Your task to perform on an android device: turn off sleep mode Image 0: 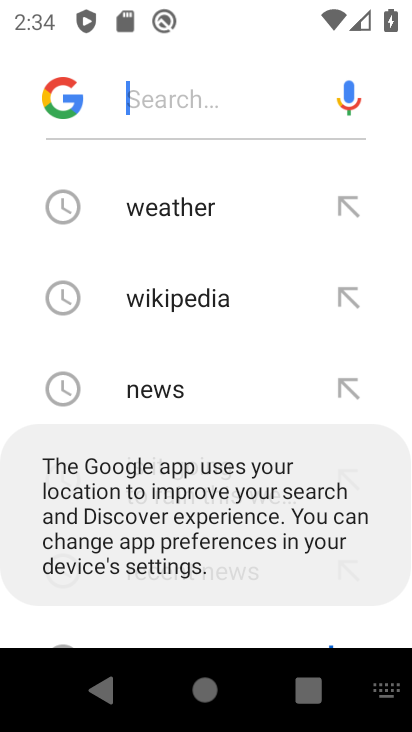
Step 0: press home button
Your task to perform on an android device: turn off sleep mode Image 1: 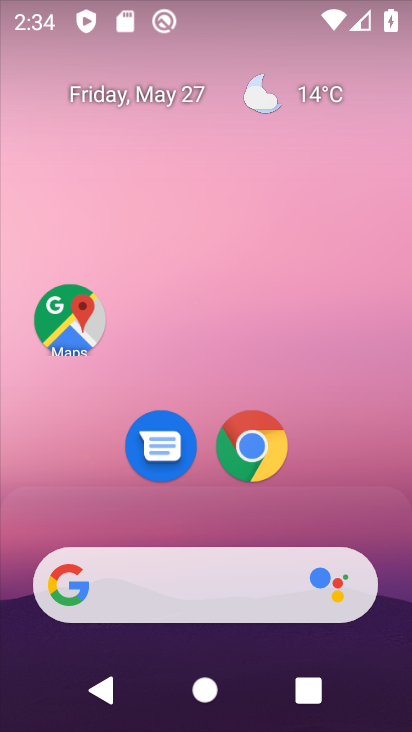
Step 1: drag from (208, 599) to (342, 31)
Your task to perform on an android device: turn off sleep mode Image 2: 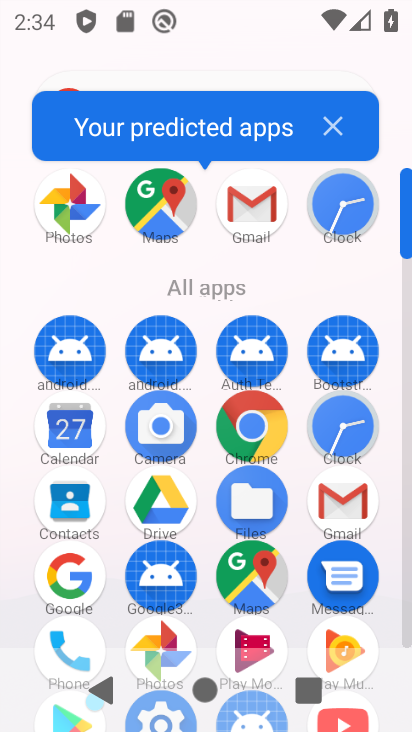
Step 2: drag from (203, 582) to (329, 112)
Your task to perform on an android device: turn off sleep mode Image 3: 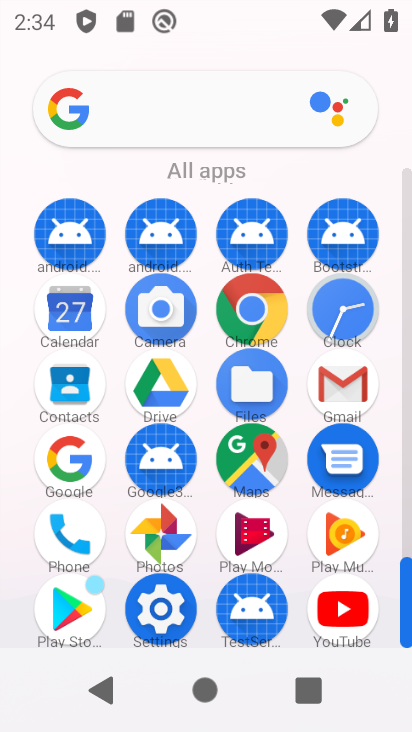
Step 3: click (157, 609)
Your task to perform on an android device: turn off sleep mode Image 4: 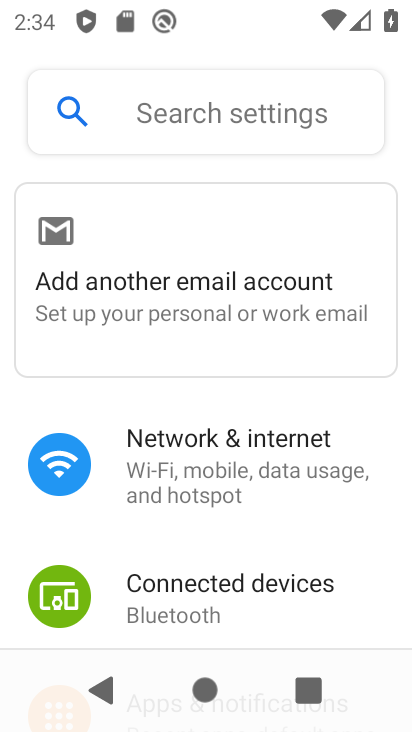
Step 4: drag from (187, 579) to (235, 124)
Your task to perform on an android device: turn off sleep mode Image 5: 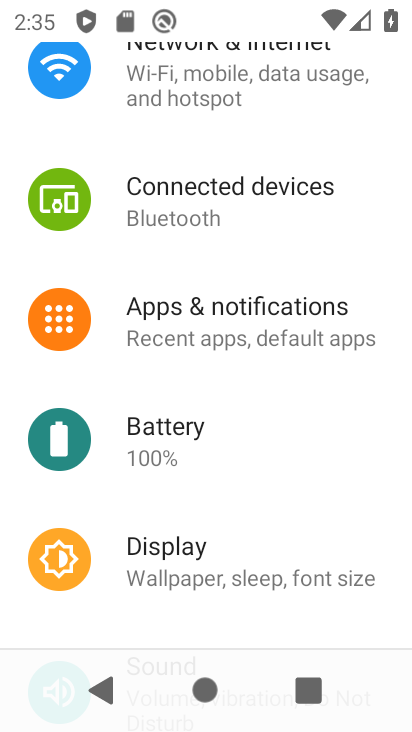
Step 5: drag from (297, 256) to (318, 93)
Your task to perform on an android device: turn off sleep mode Image 6: 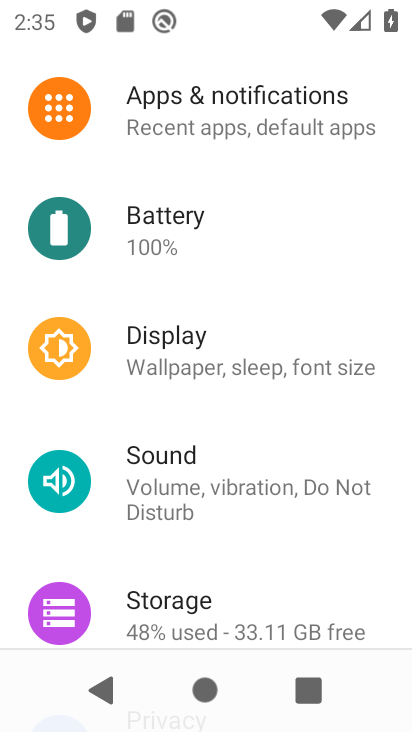
Step 6: drag from (254, 532) to (254, 467)
Your task to perform on an android device: turn off sleep mode Image 7: 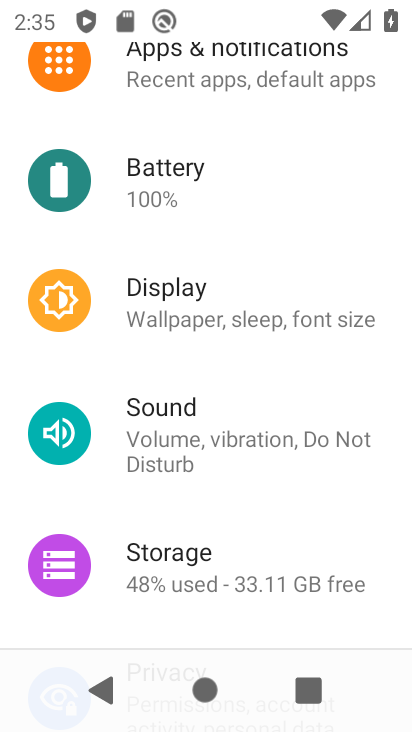
Step 7: click (229, 317)
Your task to perform on an android device: turn off sleep mode Image 8: 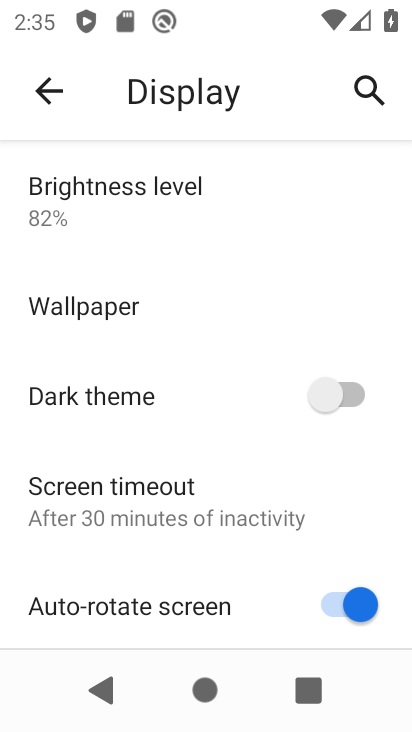
Step 8: task complete